Your task to perform on an android device: Open calendar and show me the second week of next month Image 0: 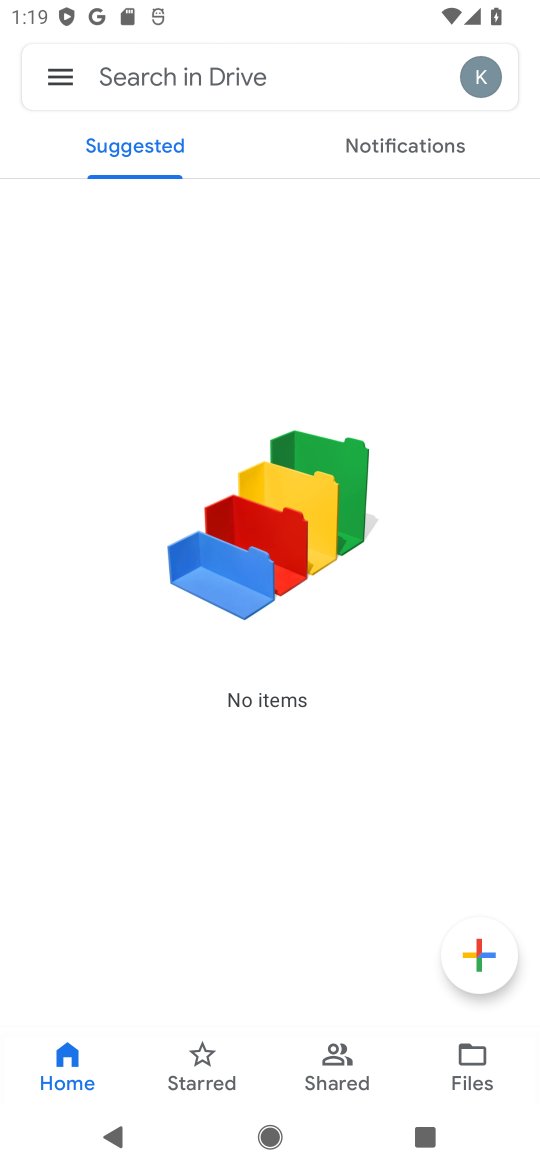
Step 0: press home button
Your task to perform on an android device: Open calendar and show me the second week of next month Image 1: 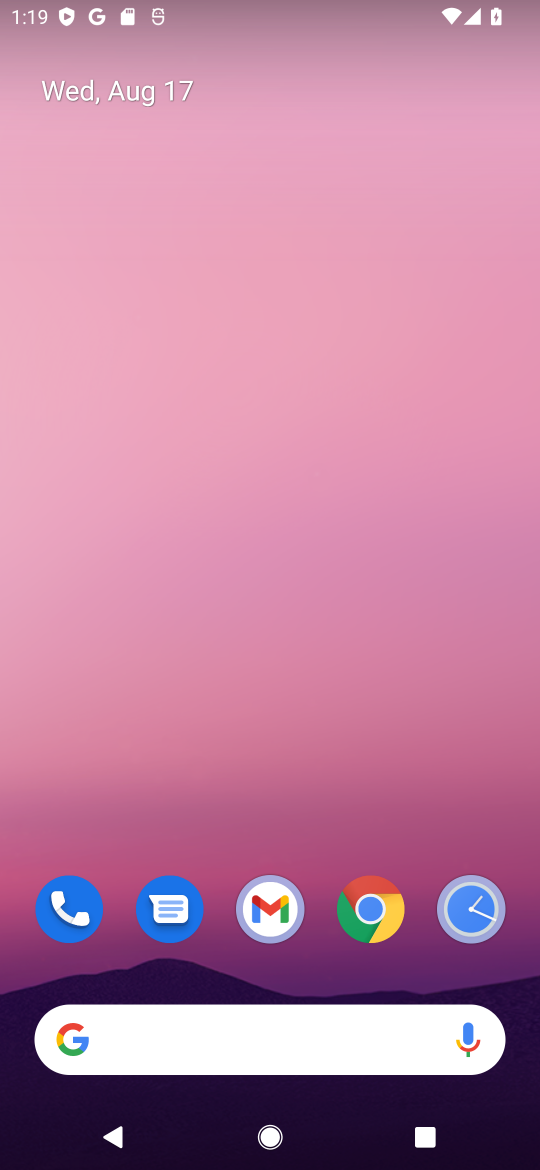
Step 1: drag from (286, 815) to (286, 121)
Your task to perform on an android device: Open calendar and show me the second week of next month Image 2: 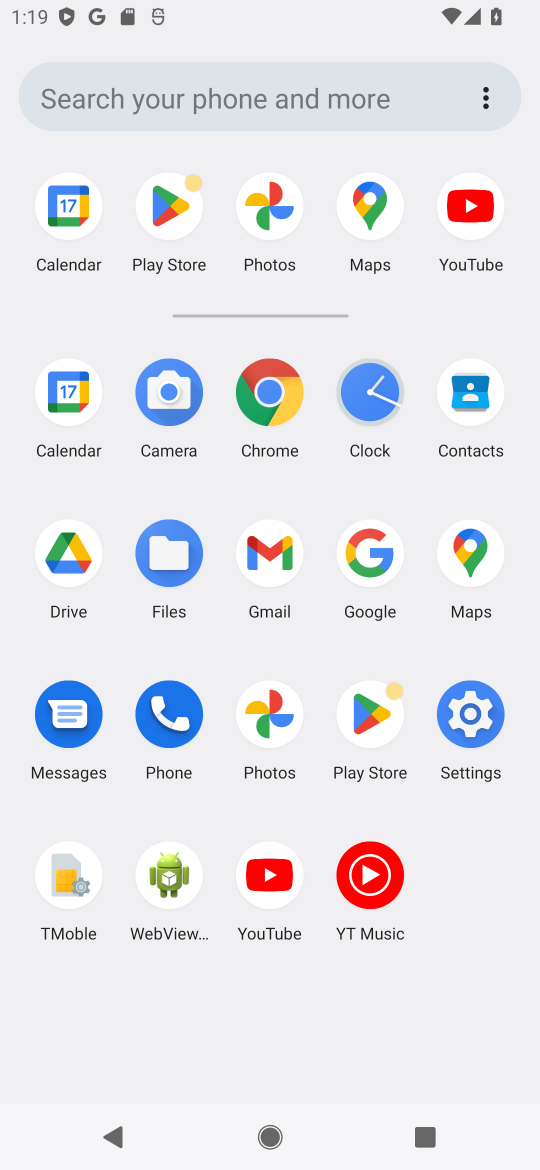
Step 2: click (58, 192)
Your task to perform on an android device: Open calendar and show me the second week of next month Image 3: 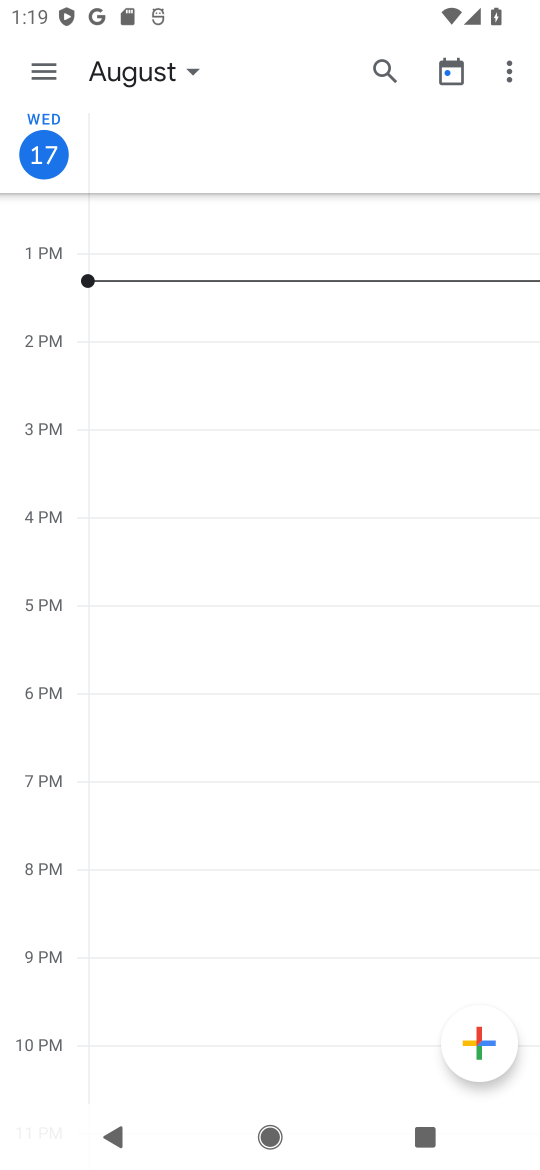
Step 3: click (48, 63)
Your task to perform on an android device: Open calendar and show me the second week of next month Image 4: 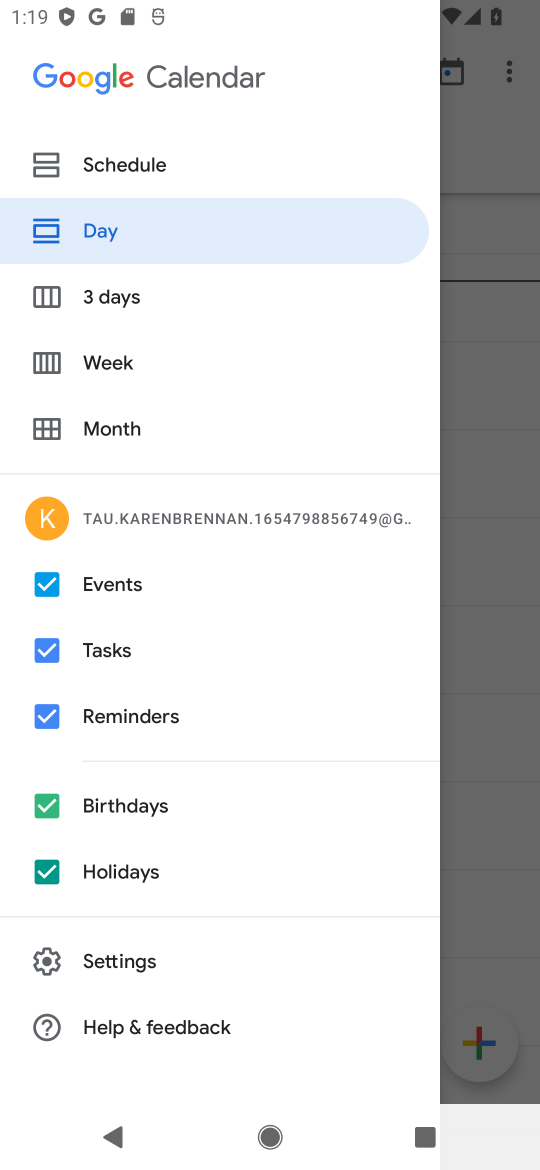
Step 4: click (119, 355)
Your task to perform on an android device: Open calendar and show me the second week of next month Image 5: 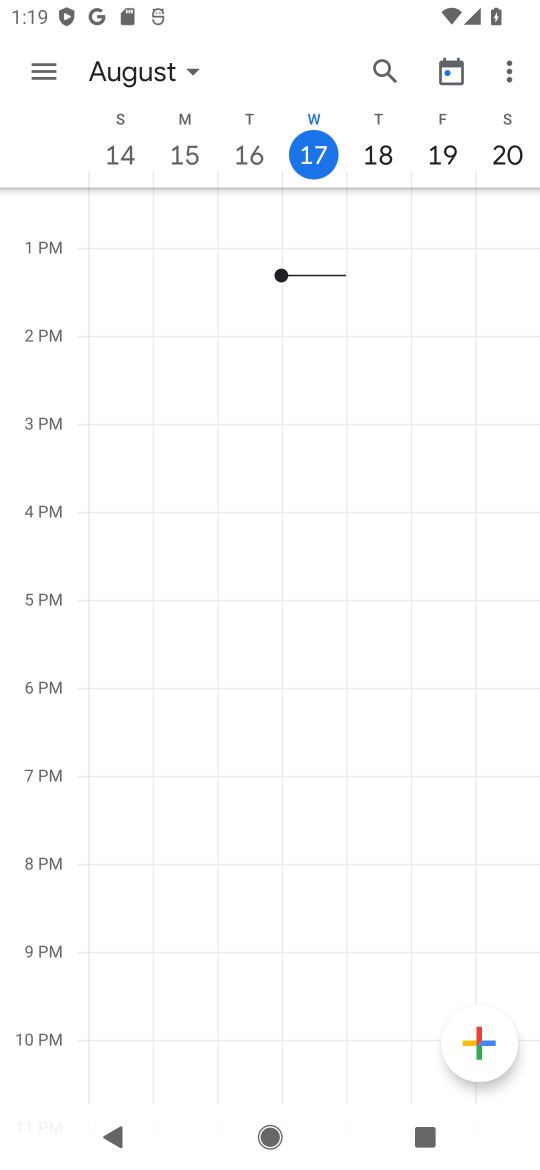
Step 5: click (188, 75)
Your task to perform on an android device: Open calendar and show me the second week of next month Image 6: 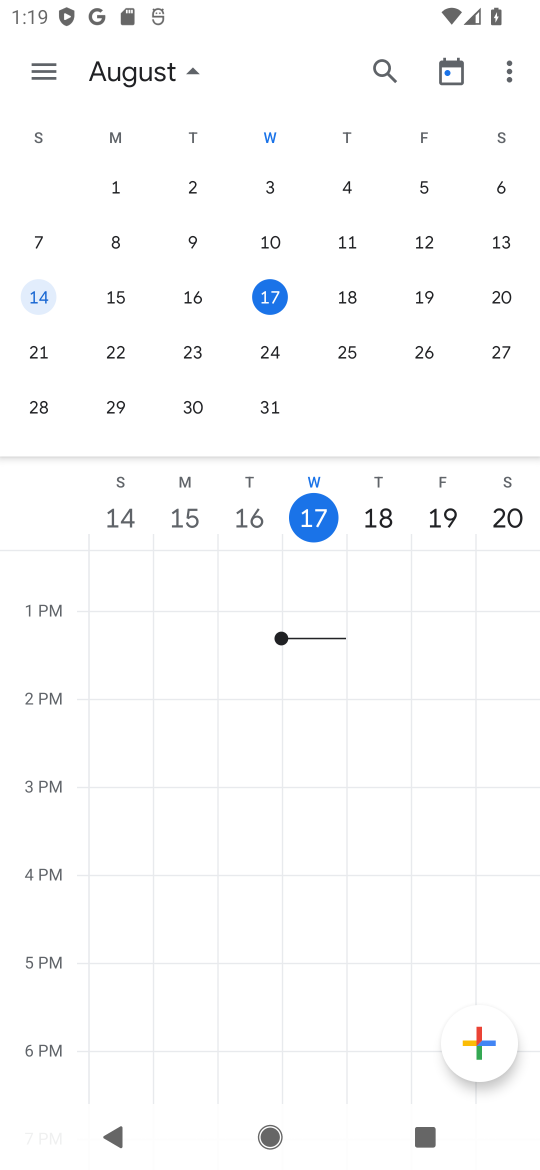
Step 6: drag from (489, 256) to (40, 211)
Your task to perform on an android device: Open calendar and show me the second week of next month Image 7: 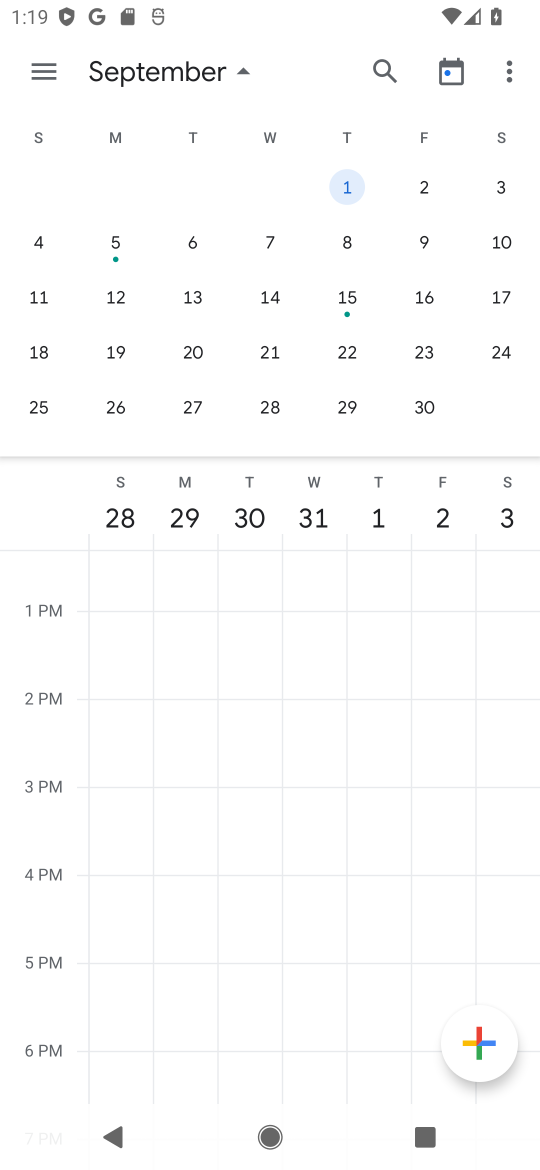
Step 7: click (261, 237)
Your task to perform on an android device: Open calendar and show me the second week of next month Image 8: 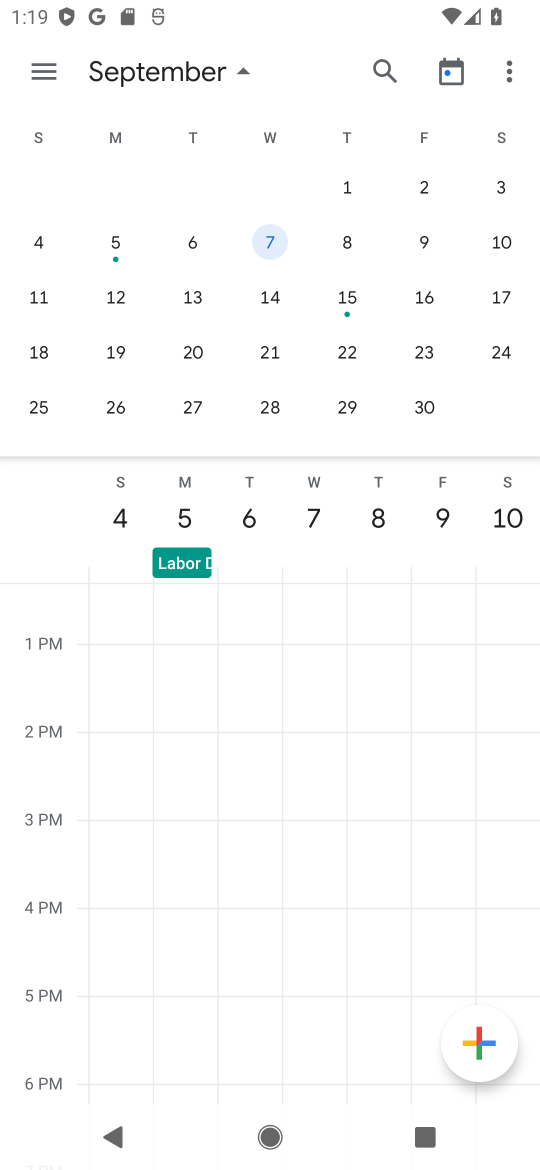
Step 8: task complete